Your task to perform on an android device: Search for sushi restaurants on Maps Image 0: 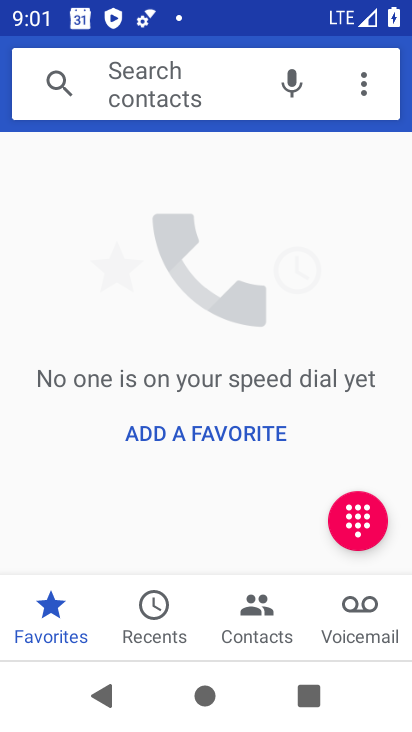
Step 0: press home button
Your task to perform on an android device: Search for sushi restaurants on Maps Image 1: 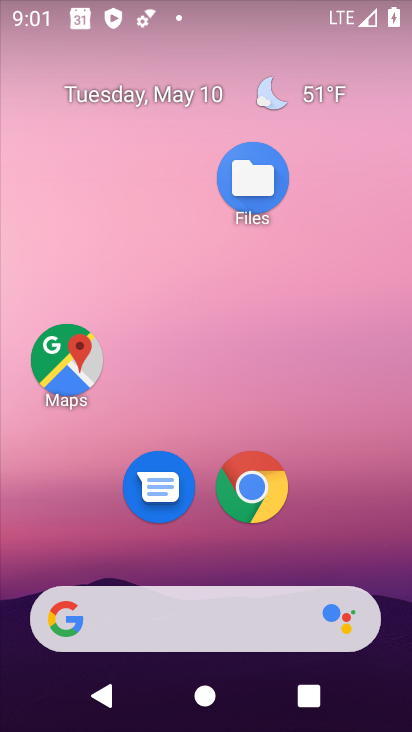
Step 1: click (59, 364)
Your task to perform on an android device: Search for sushi restaurants on Maps Image 2: 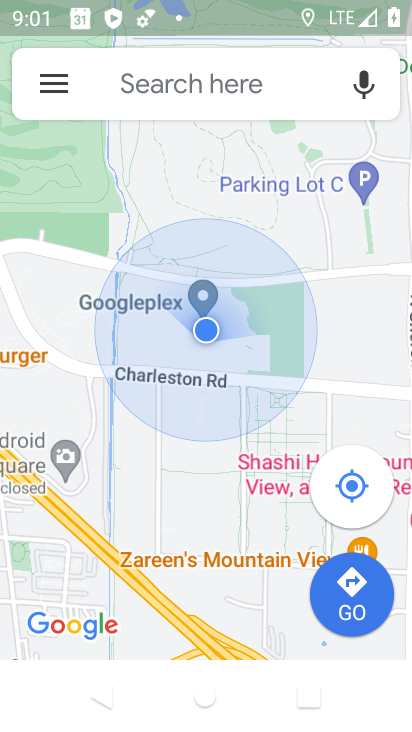
Step 2: click (230, 69)
Your task to perform on an android device: Search for sushi restaurants on Maps Image 3: 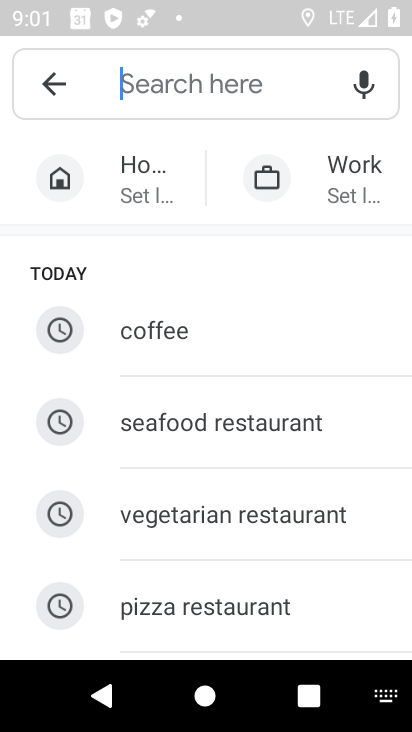
Step 3: drag from (228, 565) to (229, 186)
Your task to perform on an android device: Search for sushi restaurants on Maps Image 4: 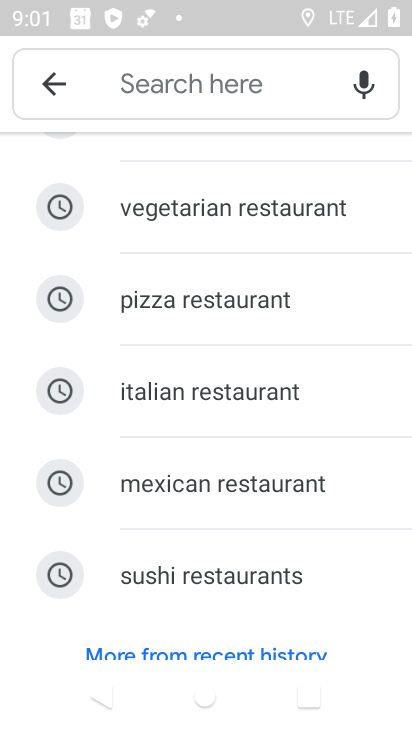
Step 4: click (219, 568)
Your task to perform on an android device: Search for sushi restaurants on Maps Image 5: 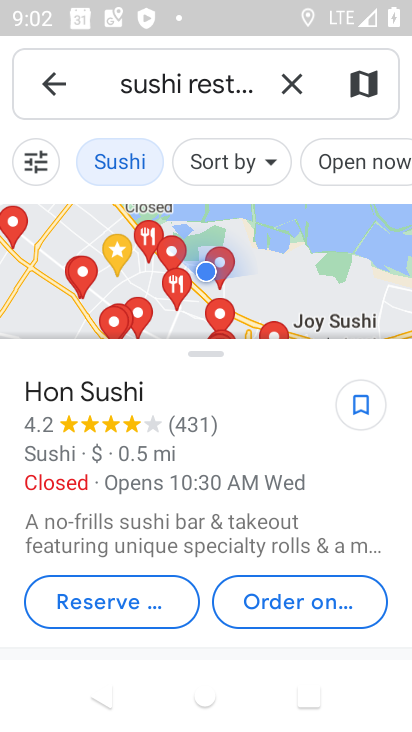
Step 5: task complete